Your task to perform on an android device: toggle priority inbox in the gmail app Image 0: 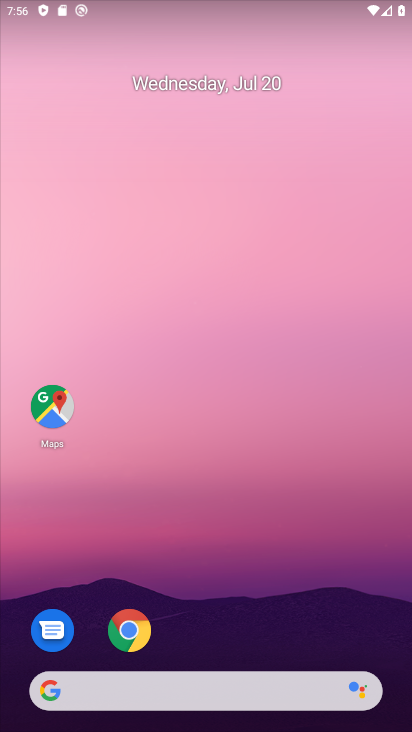
Step 0: drag from (222, 626) to (249, 240)
Your task to perform on an android device: toggle priority inbox in the gmail app Image 1: 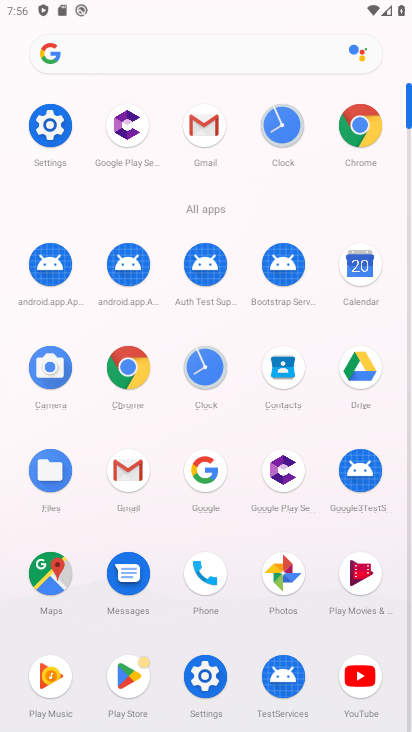
Step 1: click (206, 129)
Your task to perform on an android device: toggle priority inbox in the gmail app Image 2: 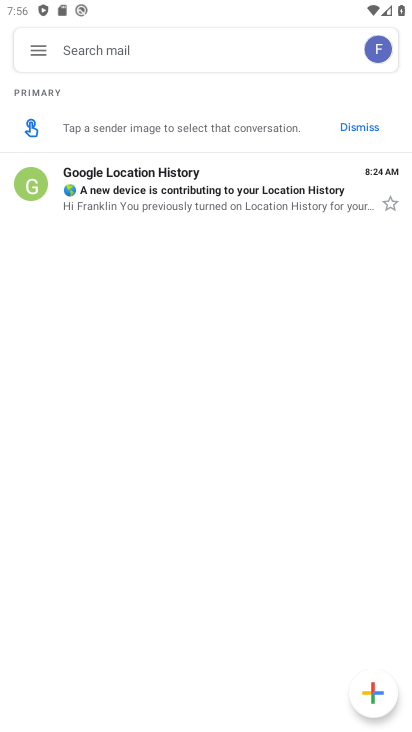
Step 2: click (30, 47)
Your task to perform on an android device: toggle priority inbox in the gmail app Image 3: 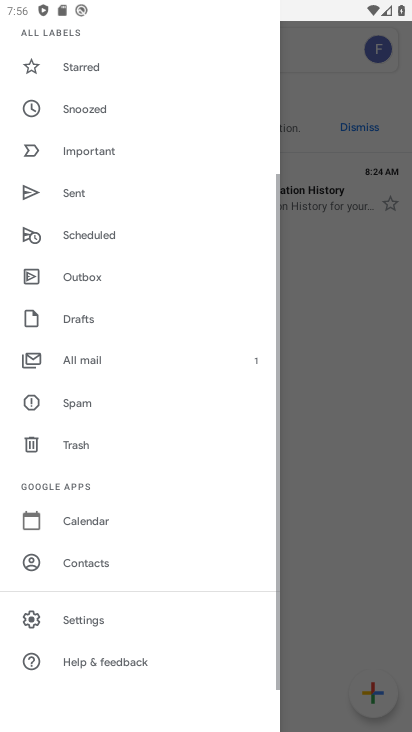
Step 3: click (91, 639)
Your task to perform on an android device: toggle priority inbox in the gmail app Image 4: 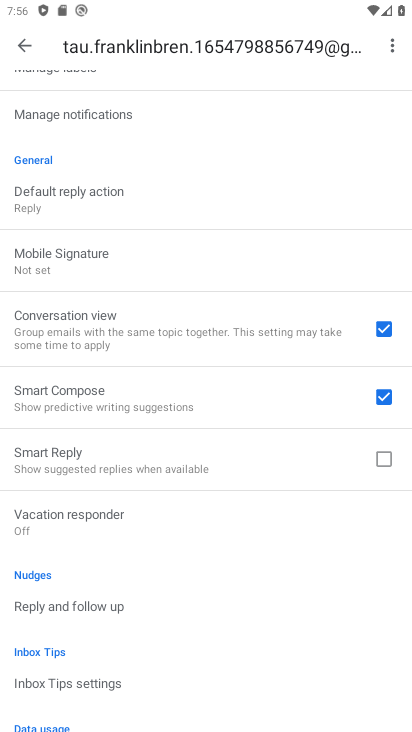
Step 4: drag from (145, 555) to (189, 695)
Your task to perform on an android device: toggle priority inbox in the gmail app Image 5: 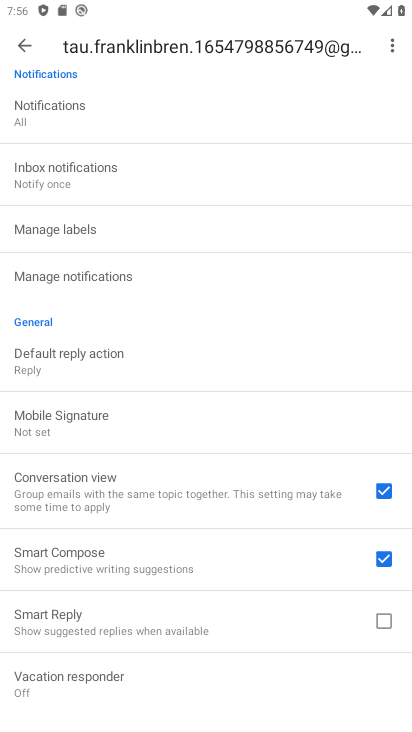
Step 5: drag from (69, 116) to (102, 322)
Your task to perform on an android device: toggle priority inbox in the gmail app Image 6: 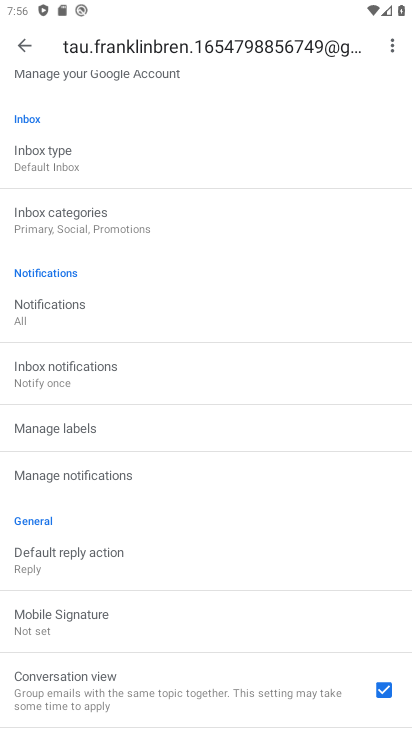
Step 6: click (59, 161)
Your task to perform on an android device: toggle priority inbox in the gmail app Image 7: 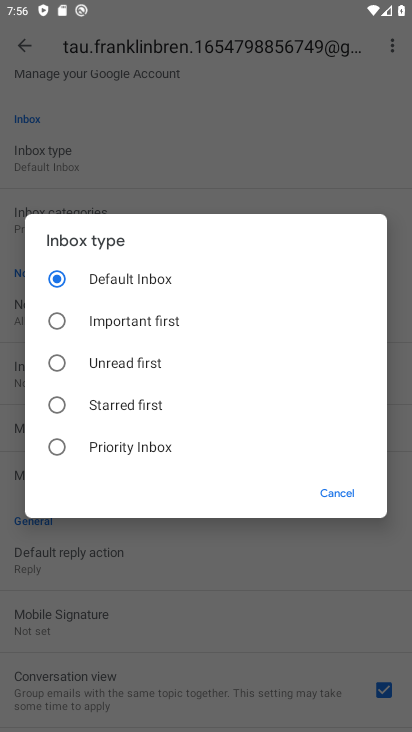
Step 7: click (57, 445)
Your task to perform on an android device: toggle priority inbox in the gmail app Image 8: 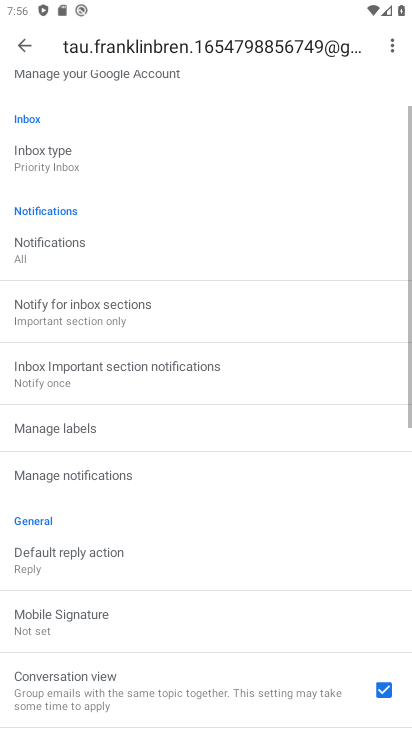
Step 8: task complete